Your task to perform on an android device: empty trash in google photos Image 0: 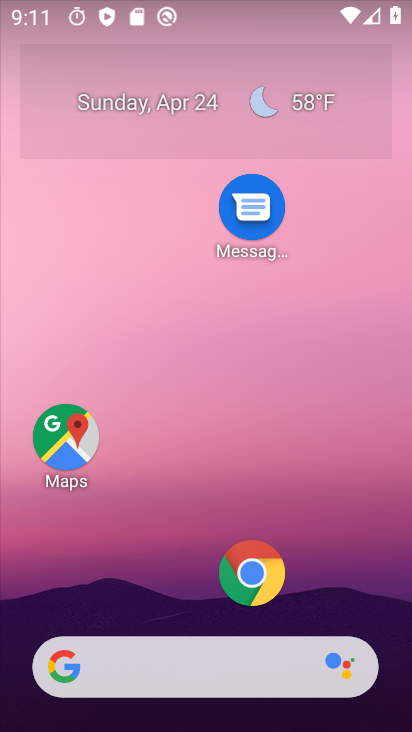
Step 0: drag from (158, 528) to (309, 1)
Your task to perform on an android device: empty trash in google photos Image 1: 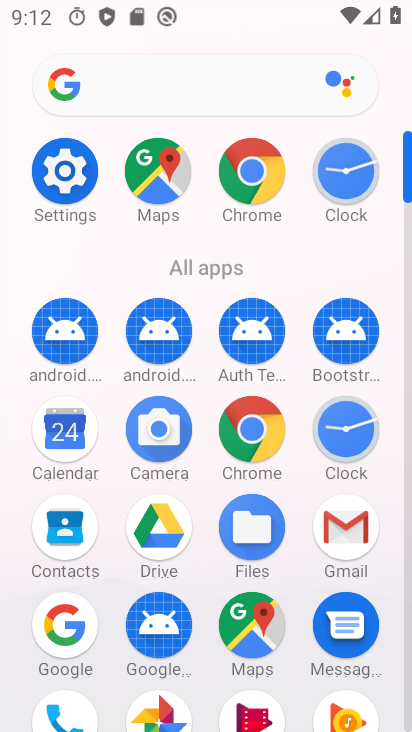
Step 1: drag from (196, 583) to (259, 93)
Your task to perform on an android device: empty trash in google photos Image 2: 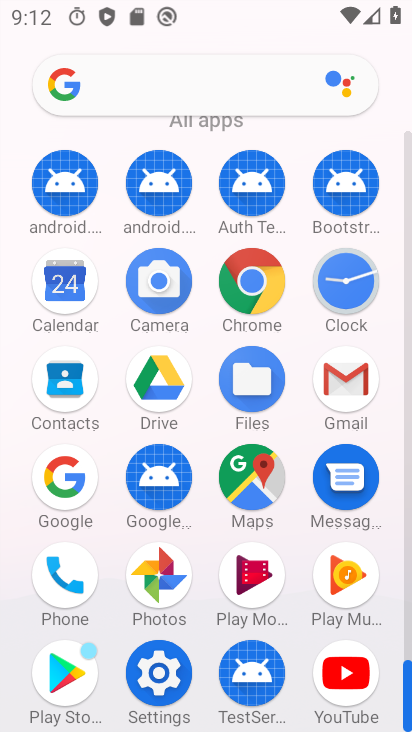
Step 2: click (156, 583)
Your task to perform on an android device: empty trash in google photos Image 3: 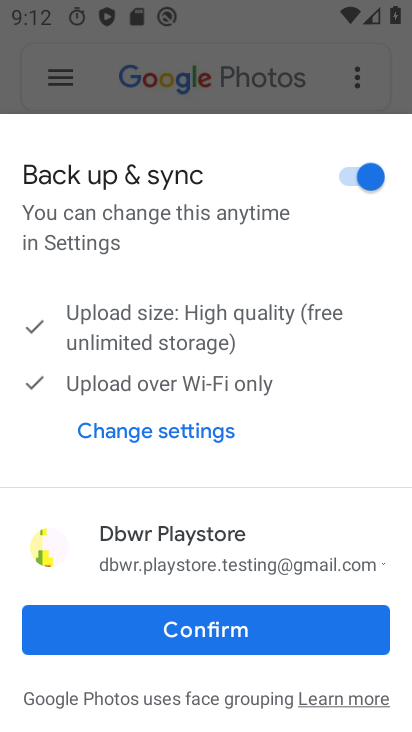
Step 3: click (258, 635)
Your task to perform on an android device: empty trash in google photos Image 4: 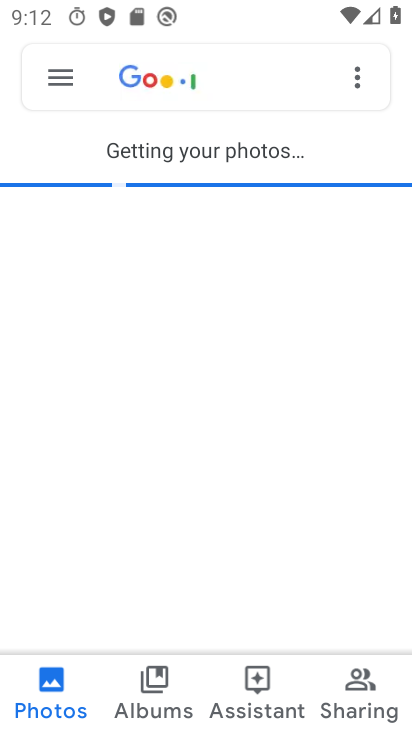
Step 4: click (64, 80)
Your task to perform on an android device: empty trash in google photos Image 5: 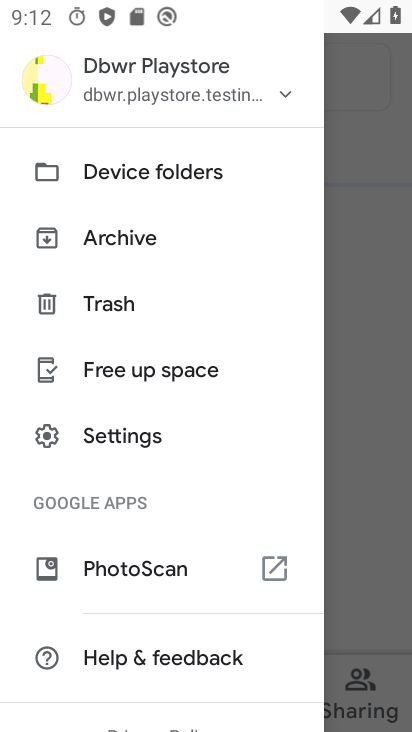
Step 5: click (118, 303)
Your task to perform on an android device: empty trash in google photos Image 6: 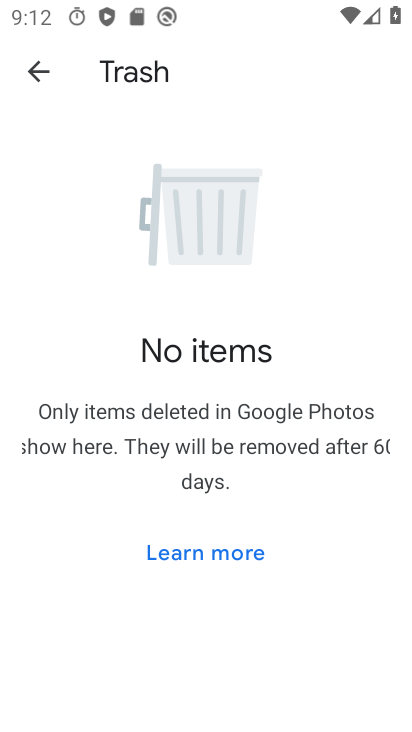
Step 6: task complete